Your task to perform on an android device: open sync settings in chrome Image 0: 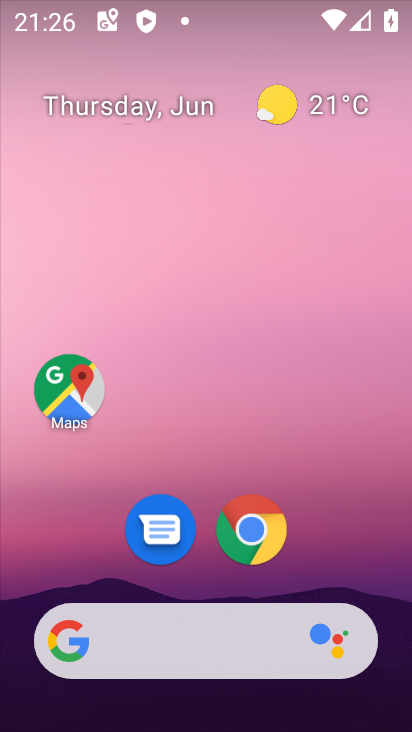
Step 0: click (258, 530)
Your task to perform on an android device: open sync settings in chrome Image 1: 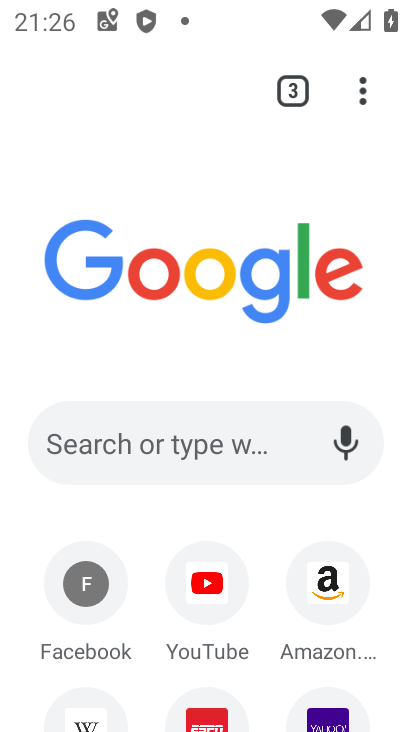
Step 1: click (370, 91)
Your task to perform on an android device: open sync settings in chrome Image 2: 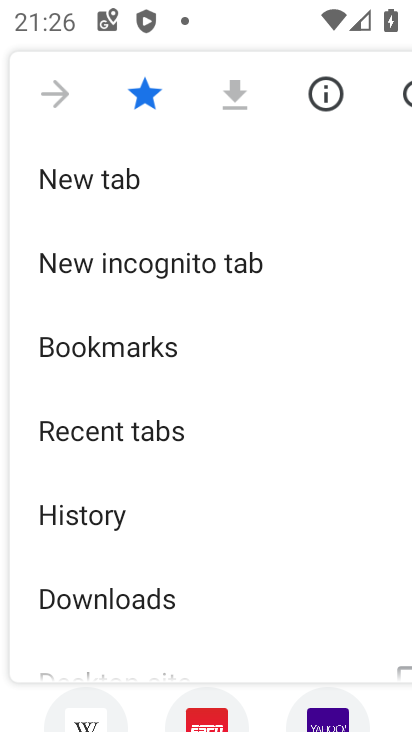
Step 2: drag from (269, 513) to (231, 155)
Your task to perform on an android device: open sync settings in chrome Image 3: 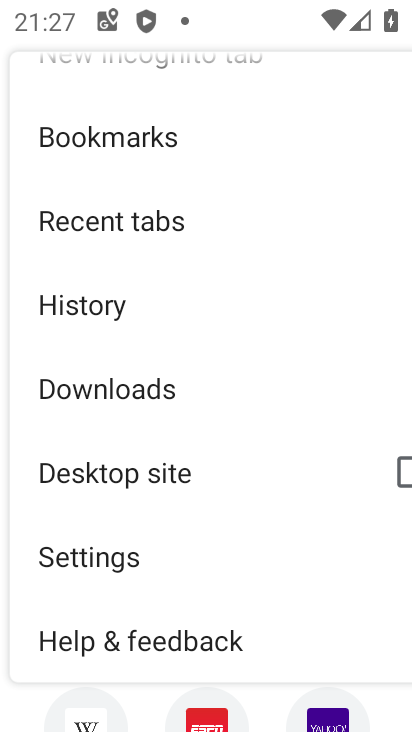
Step 3: click (91, 550)
Your task to perform on an android device: open sync settings in chrome Image 4: 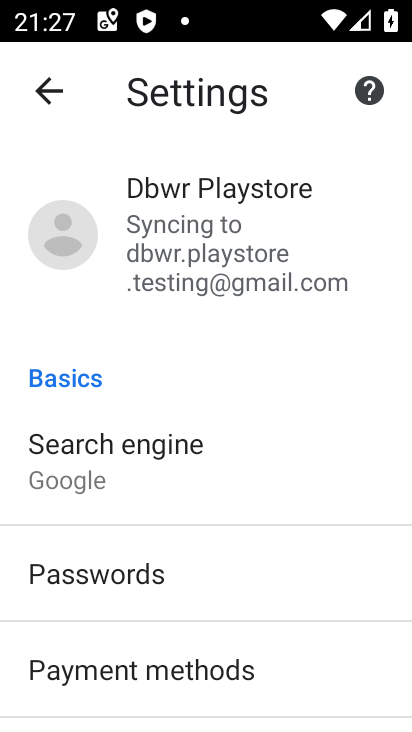
Step 4: click (189, 198)
Your task to perform on an android device: open sync settings in chrome Image 5: 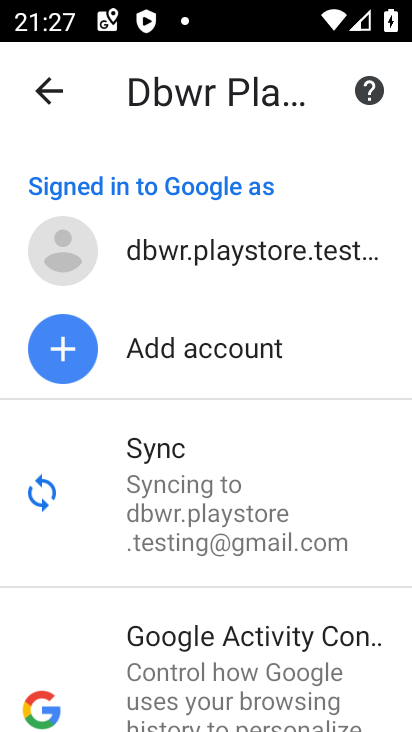
Step 5: click (160, 495)
Your task to perform on an android device: open sync settings in chrome Image 6: 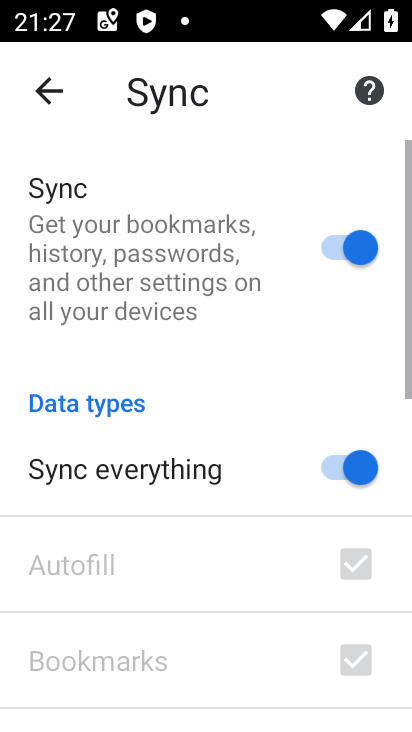
Step 6: click (160, 495)
Your task to perform on an android device: open sync settings in chrome Image 7: 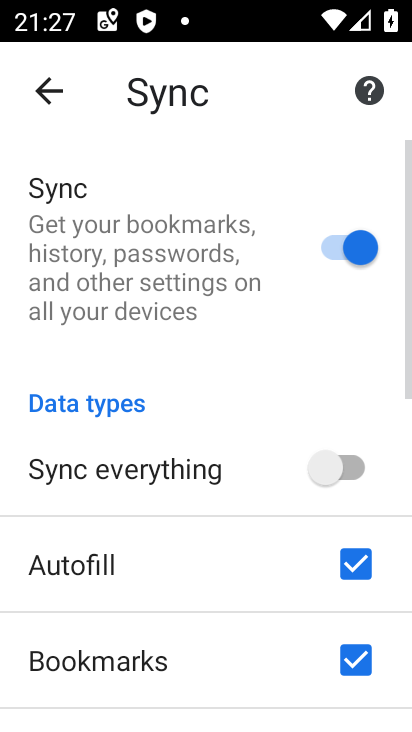
Step 7: task complete